Your task to perform on an android device: open chrome and create a bookmark for the current page Image 0: 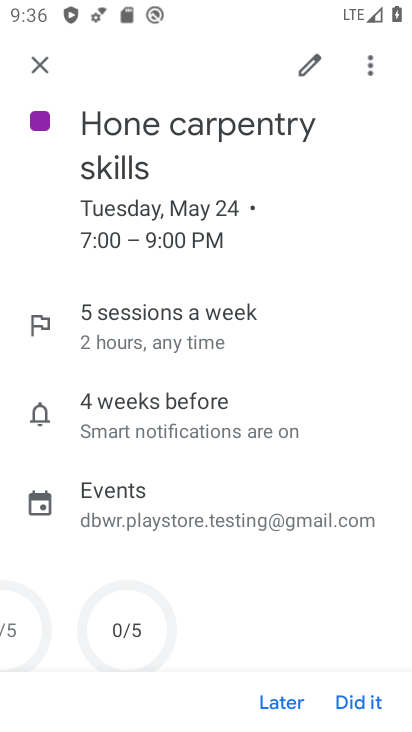
Step 0: press home button
Your task to perform on an android device: open chrome and create a bookmark for the current page Image 1: 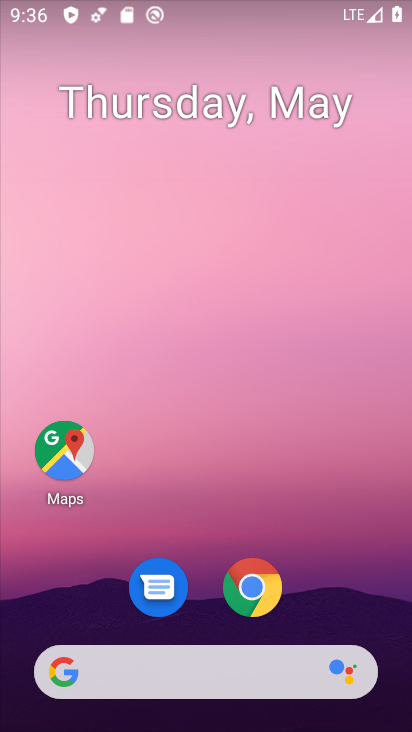
Step 1: click (255, 600)
Your task to perform on an android device: open chrome and create a bookmark for the current page Image 2: 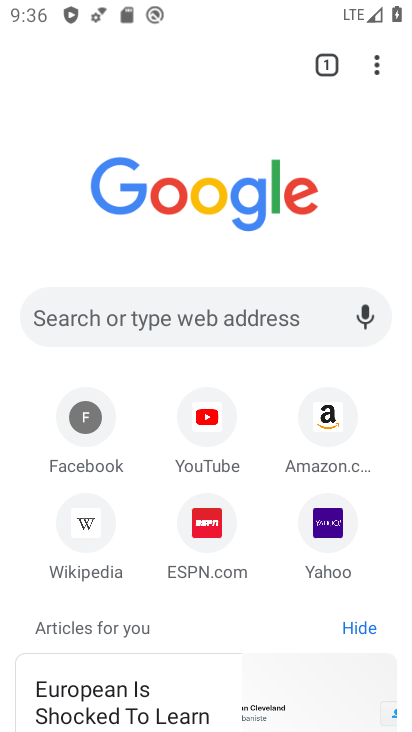
Step 2: click (379, 63)
Your task to perform on an android device: open chrome and create a bookmark for the current page Image 3: 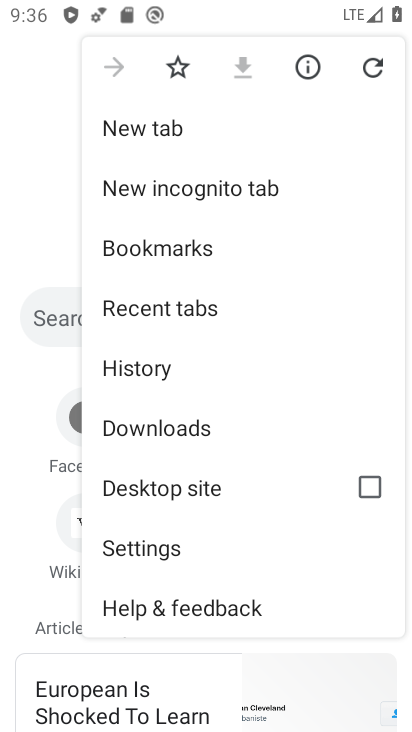
Step 3: click (179, 66)
Your task to perform on an android device: open chrome and create a bookmark for the current page Image 4: 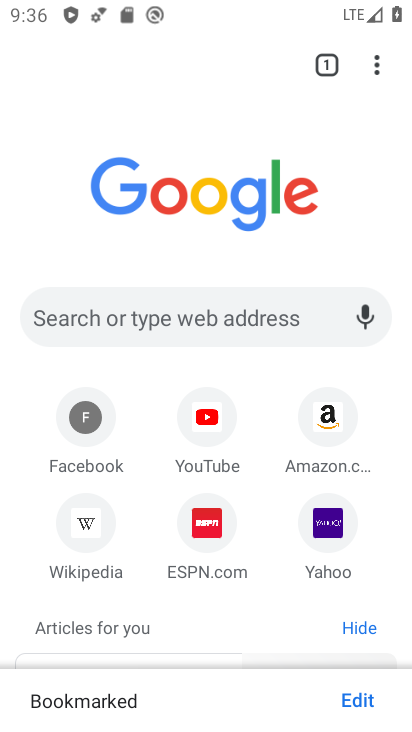
Step 4: task complete